Your task to perform on an android device: toggle translation in the chrome app Image 0: 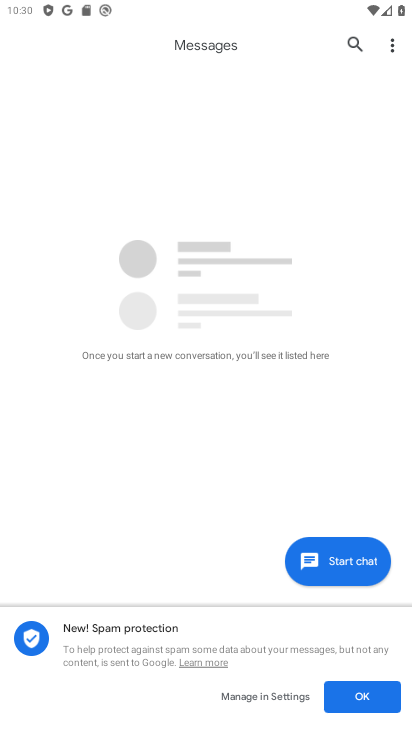
Step 0: press home button
Your task to perform on an android device: toggle translation in the chrome app Image 1: 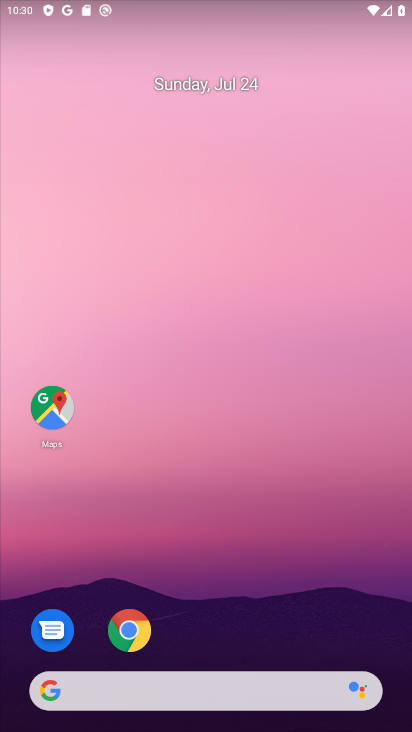
Step 1: click (123, 616)
Your task to perform on an android device: toggle translation in the chrome app Image 2: 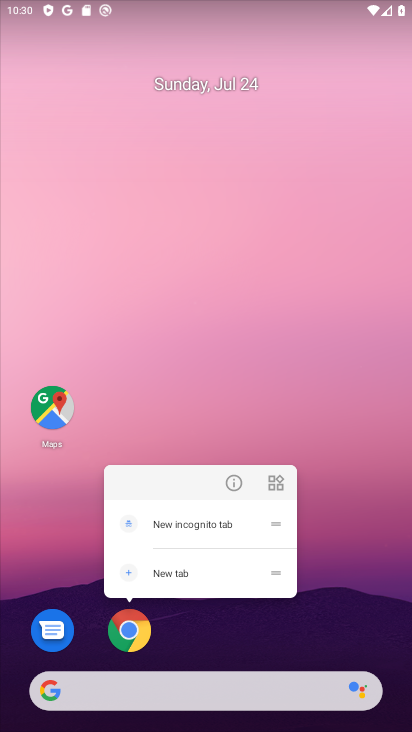
Step 2: click (123, 611)
Your task to perform on an android device: toggle translation in the chrome app Image 3: 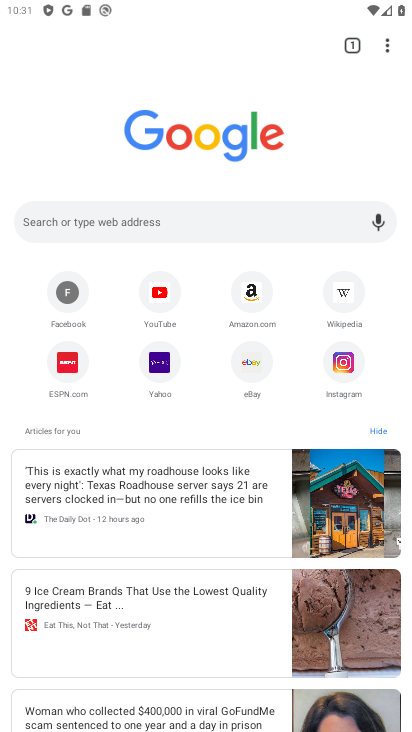
Step 3: drag from (386, 43) to (213, 384)
Your task to perform on an android device: toggle translation in the chrome app Image 4: 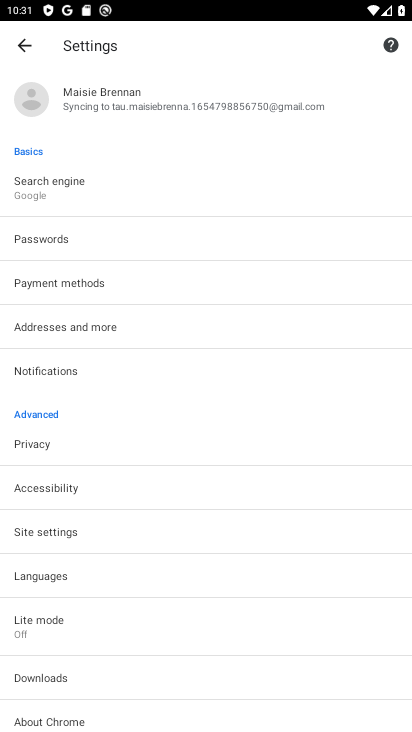
Step 4: click (36, 578)
Your task to perform on an android device: toggle translation in the chrome app Image 5: 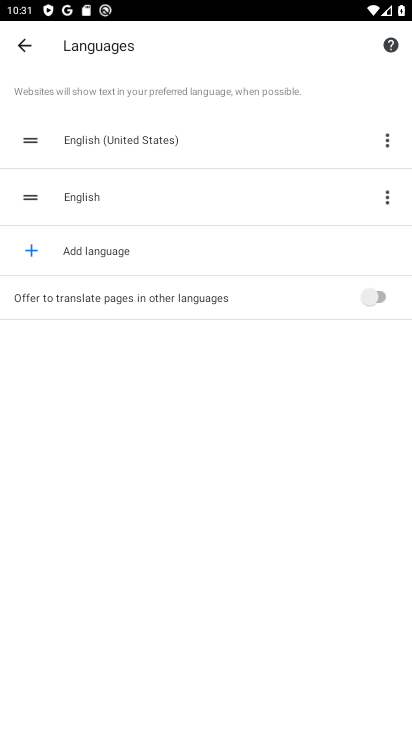
Step 5: click (377, 291)
Your task to perform on an android device: toggle translation in the chrome app Image 6: 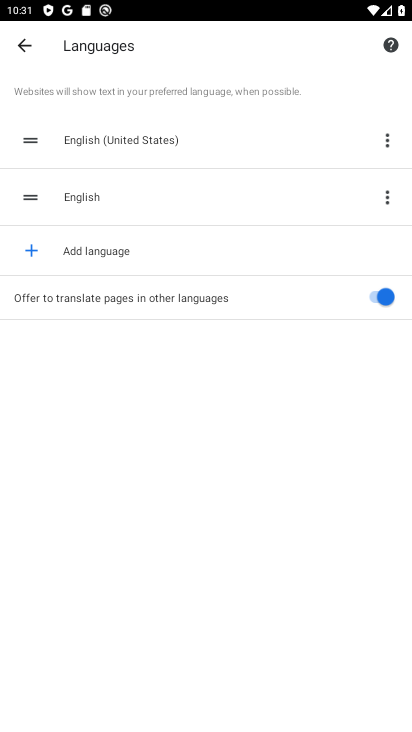
Step 6: task complete